Your task to perform on an android device: Search for logitech g502 on amazon.com, select the first entry, add it to the cart, then select checkout. Image 0: 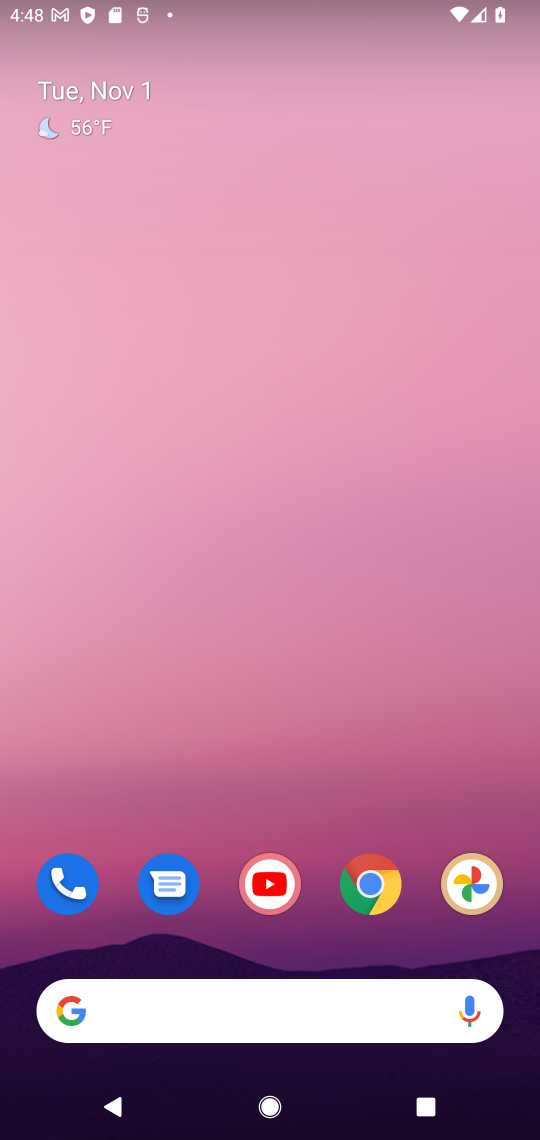
Step 0: click (537, 313)
Your task to perform on an android device: Search for logitech g502 on amazon.com, select the first entry, add it to the cart, then select checkout. Image 1: 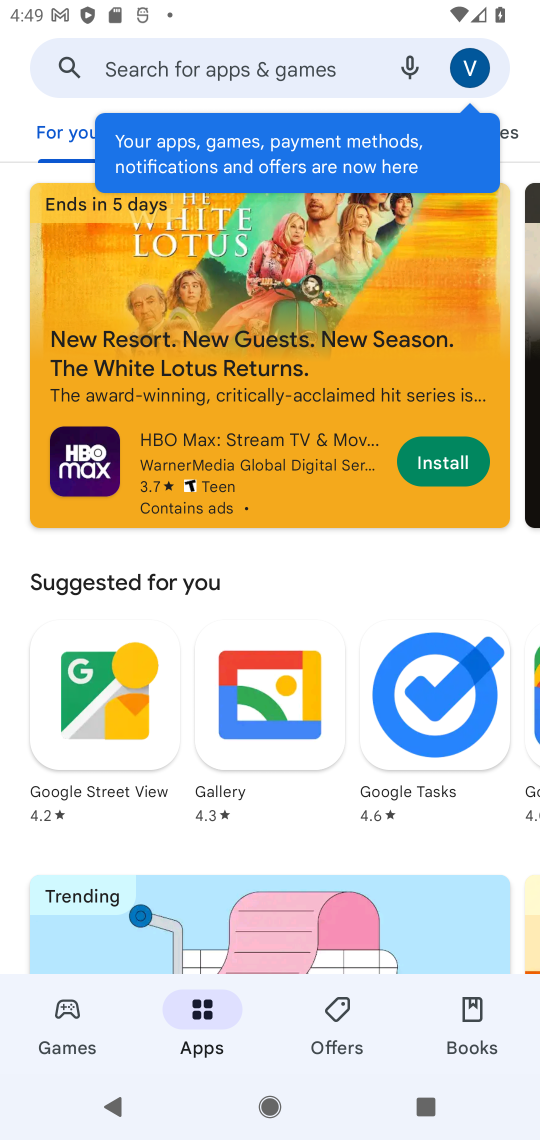
Step 1: press home button
Your task to perform on an android device: Search for logitech g502 on amazon.com, select the first entry, add it to the cart, then select checkout. Image 2: 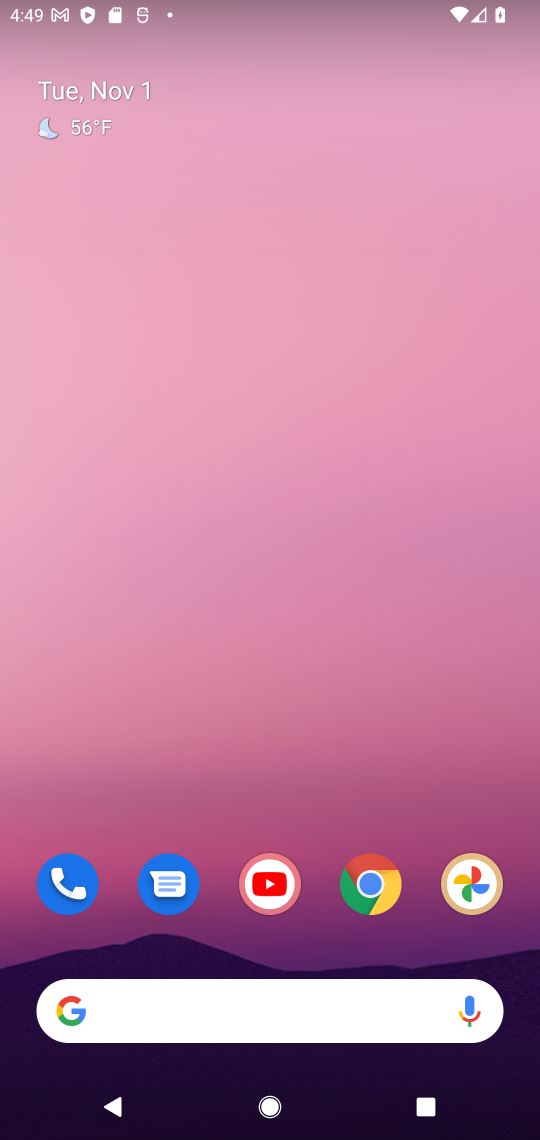
Step 2: click (356, 898)
Your task to perform on an android device: Search for logitech g502 on amazon.com, select the first entry, add it to the cart, then select checkout. Image 3: 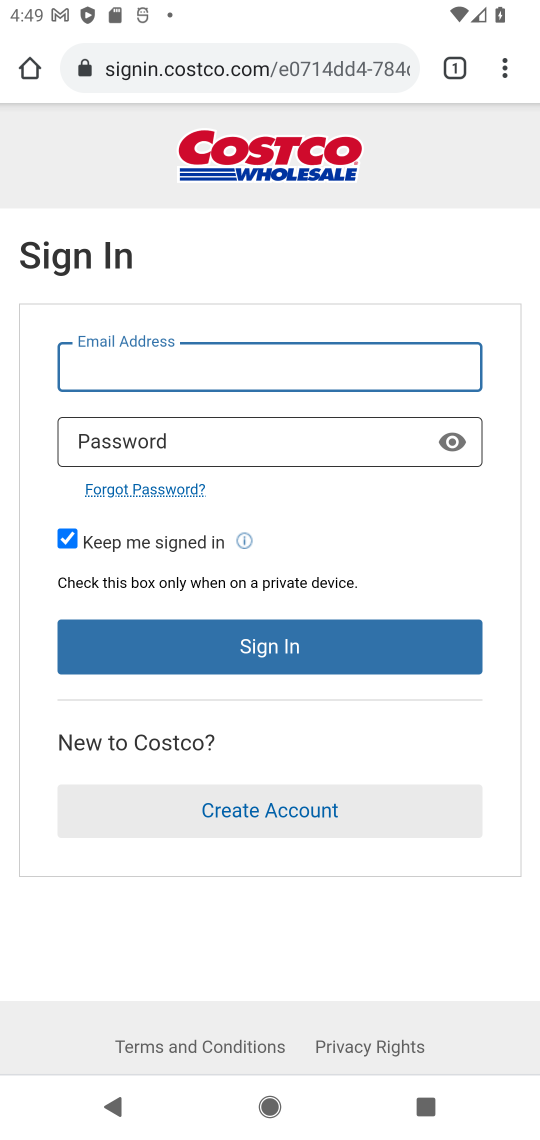
Step 3: click (242, 68)
Your task to perform on an android device: Search for logitech g502 on amazon.com, select the first entry, add it to the cart, then select checkout. Image 4: 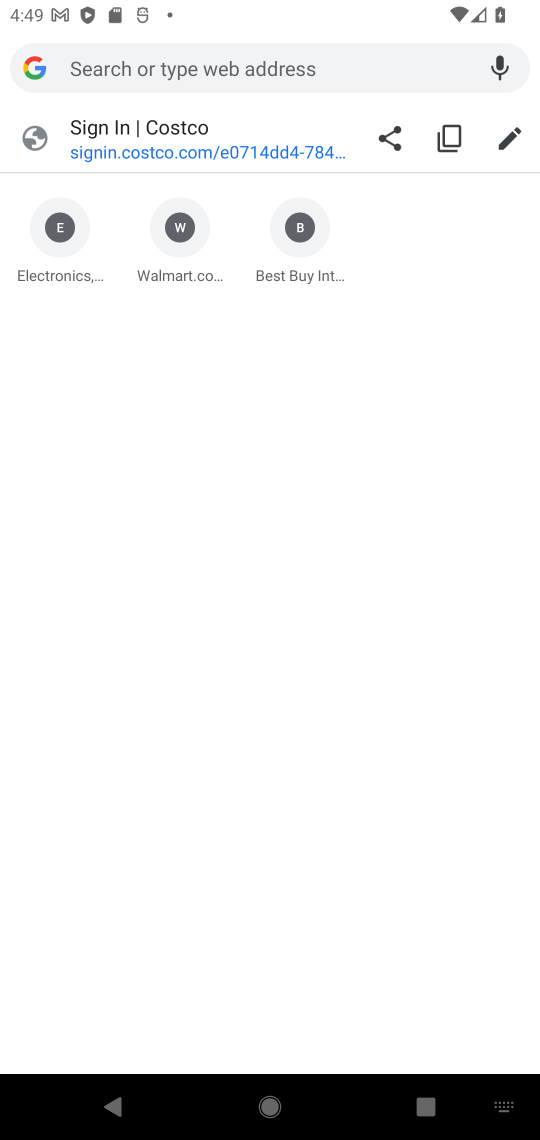
Step 4: type "amazon.com"
Your task to perform on an android device: Search for logitech g502 on amazon.com, select the first entry, add it to the cart, then select checkout. Image 5: 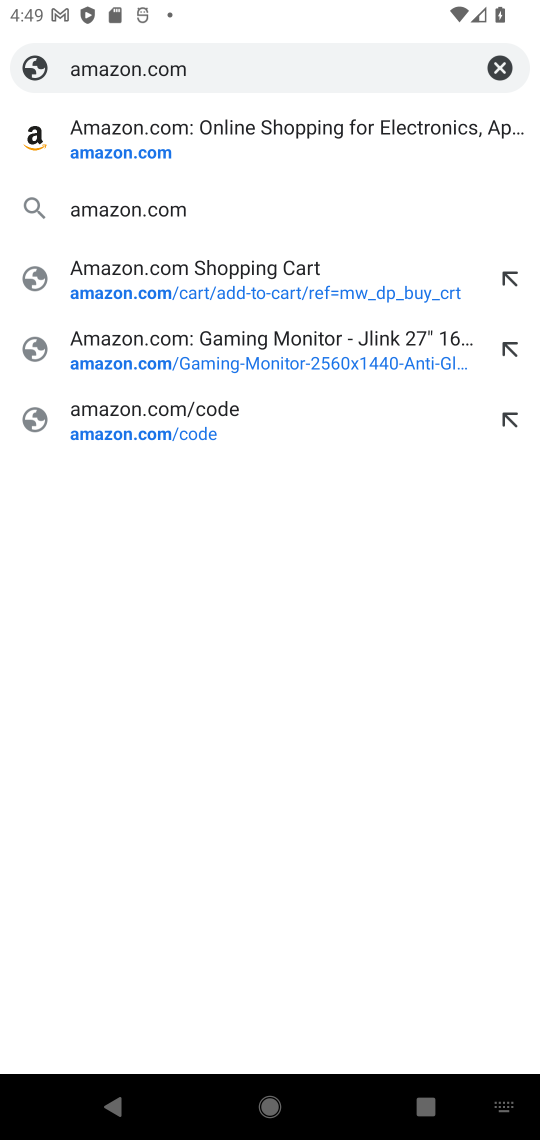
Step 5: click (290, 68)
Your task to perform on an android device: Search for logitech g502 on amazon.com, select the first entry, add it to the cart, then select checkout. Image 6: 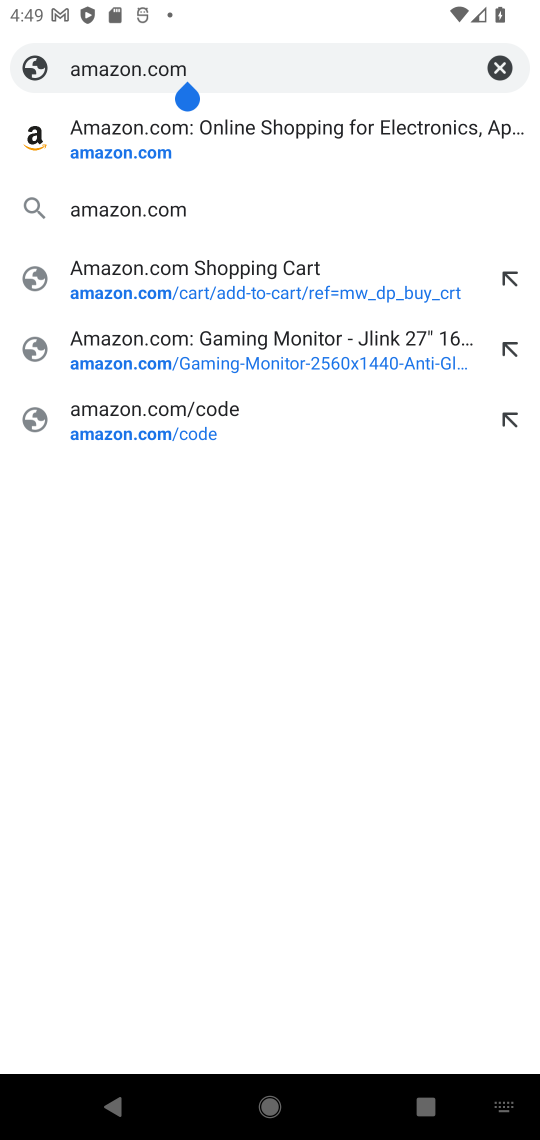
Step 6: click (198, 133)
Your task to perform on an android device: Search for logitech g502 on amazon.com, select the first entry, add it to the cart, then select checkout. Image 7: 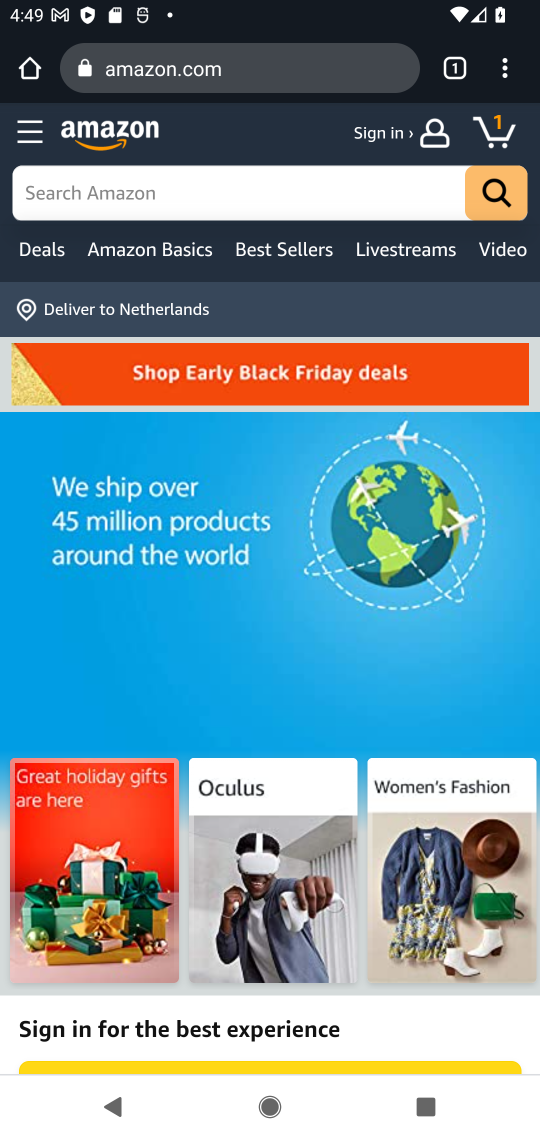
Step 7: click (182, 190)
Your task to perform on an android device: Search for logitech g502 on amazon.com, select the first entry, add it to the cart, then select checkout. Image 8: 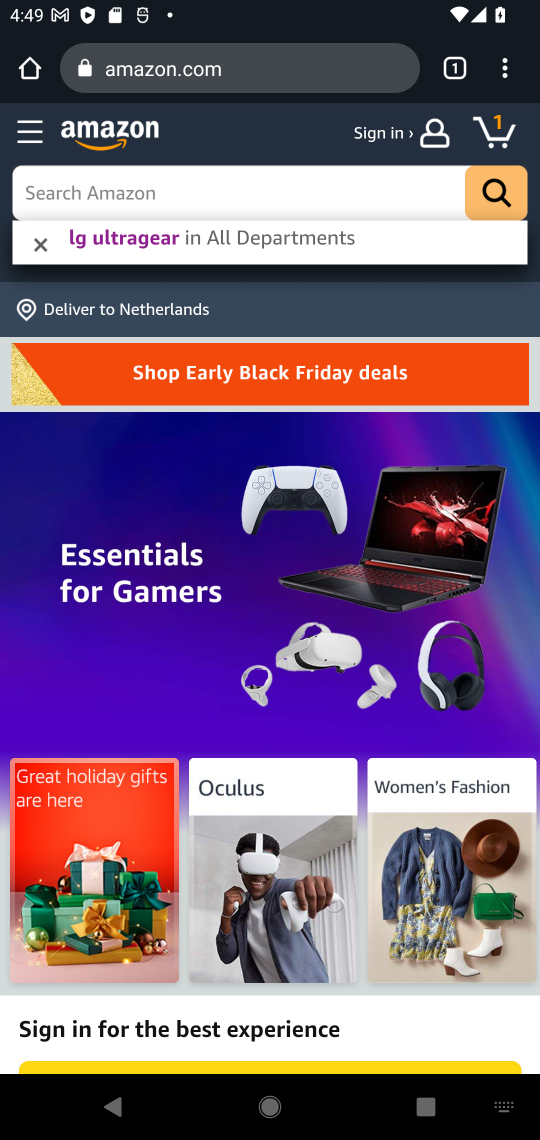
Step 8: type "logitech g502"
Your task to perform on an android device: Search for logitech g502 on amazon.com, select the first entry, add it to the cart, then select checkout. Image 9: 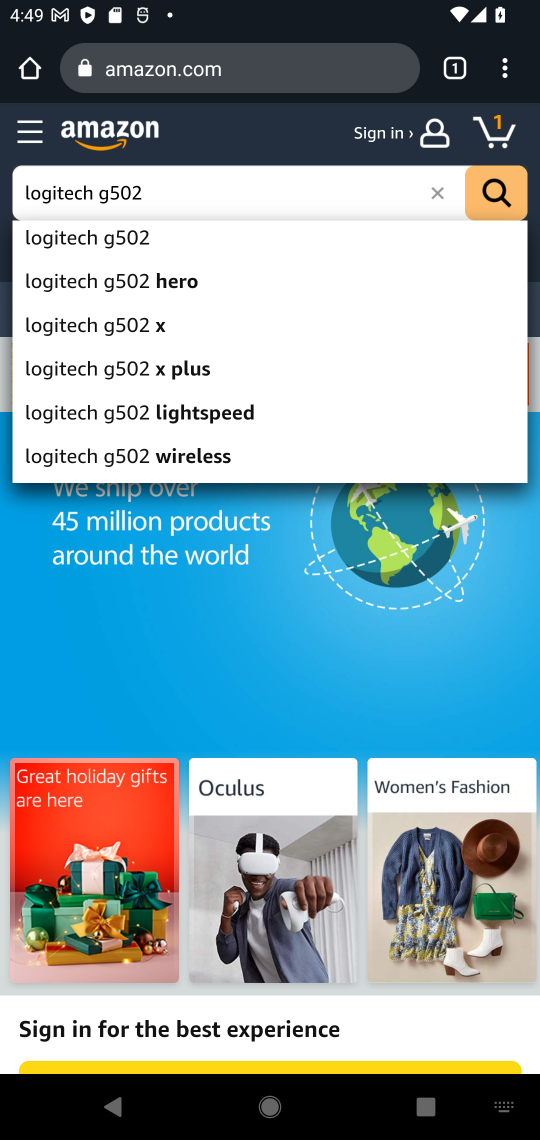
Step 9: click (63, 239)
Your task to perform on an android device: Search for logitech g502 on amazon.com, select the first entry, add it to the cart, then select checkout. Image 10: 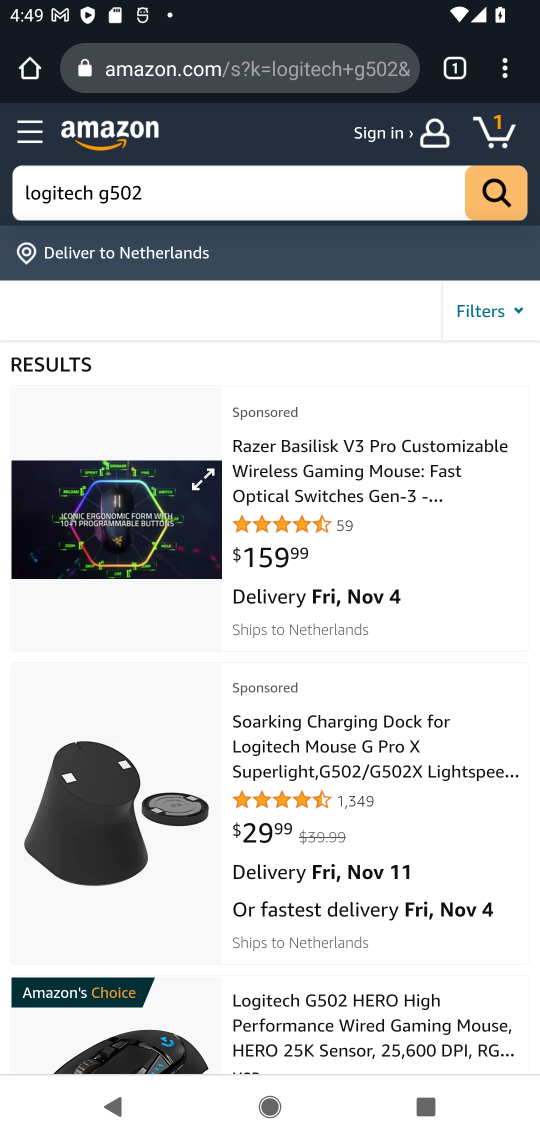
Step 10: click (375, 462)
Your task to perform on an android device: Search for logitech g502 on amazon.com, select the first entry, add it to the cart, then select checkout. Image 11: 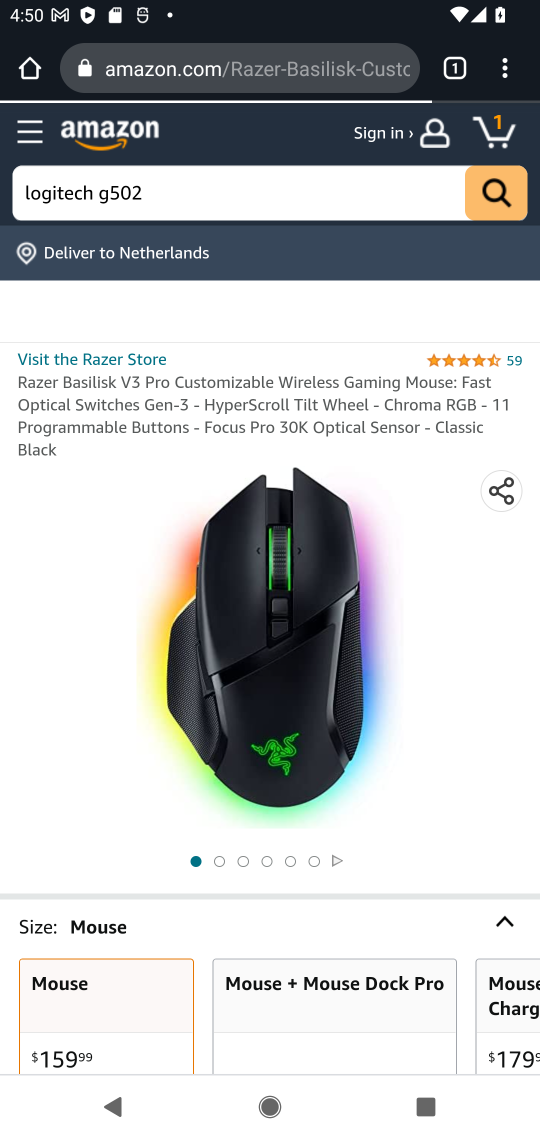
Step 11: drag from (305, 932) to (377, 321)
Your task to perform on an android device: Search for logitech g502 on amazon.com, select the first entry, add it to the cart, then select checkout. Image 12: 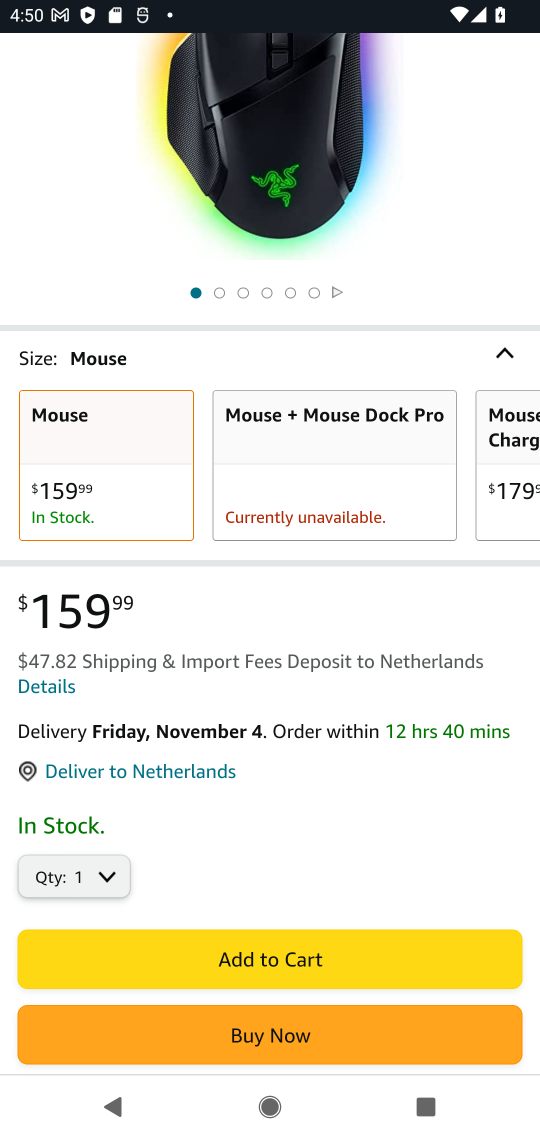
Step 12: click (289, 958)
Your task to perform on an android device: Search for logitech g502 on amazon.com, select the first entry, add it to the cart, then select checkout. Image 13: 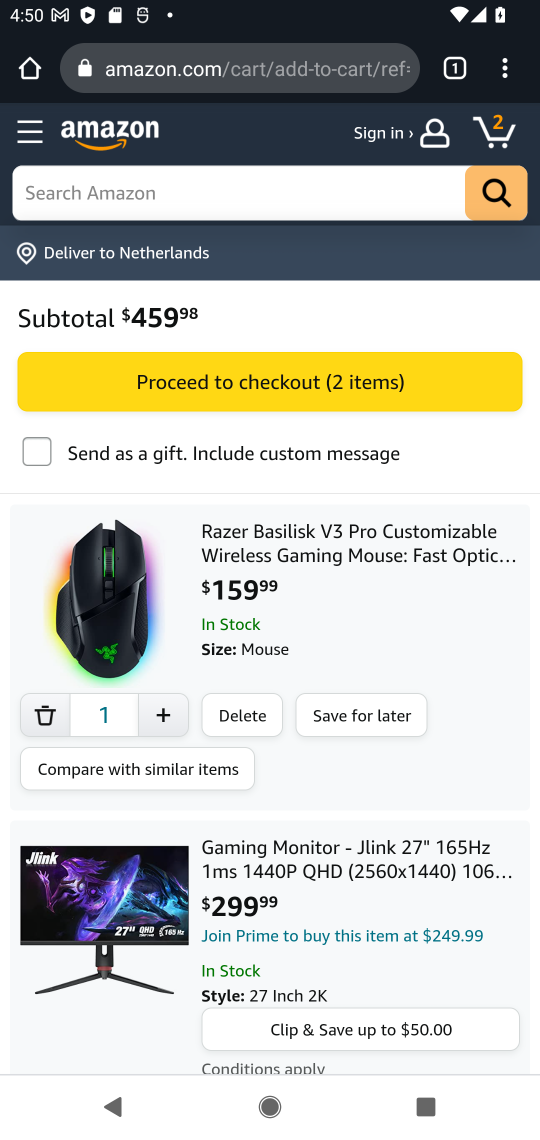
Step 13: click (355, 379)
Your task to perform on an android device: Search for logitech g502 on amazon.com, select the first entry, add it to the cart, then select checkout. Image 14: 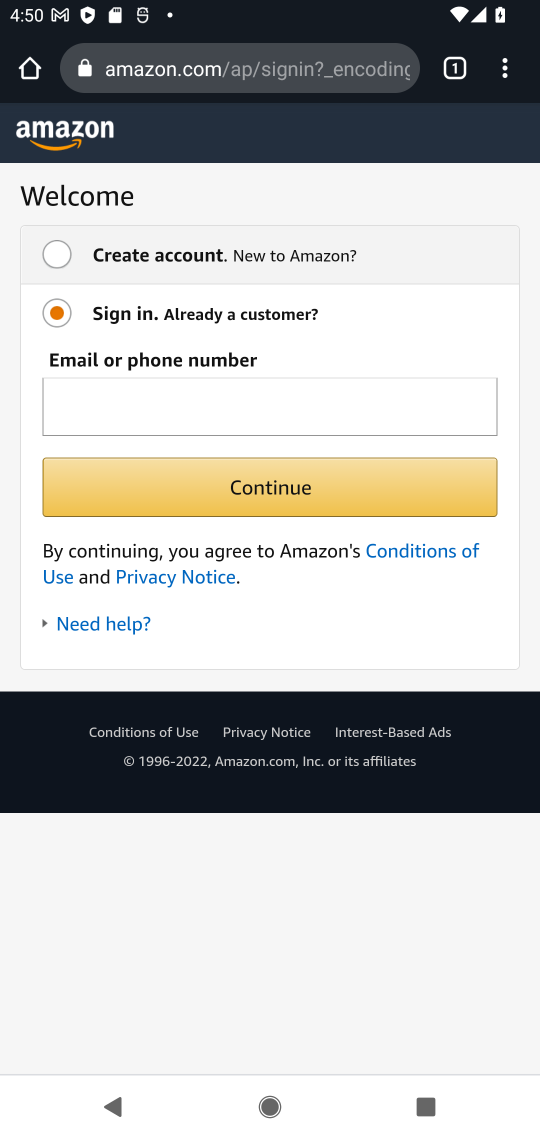
Step 14: task complete